Your task to perform on an android device: Open calendar and show me the second week of next month Image 0: 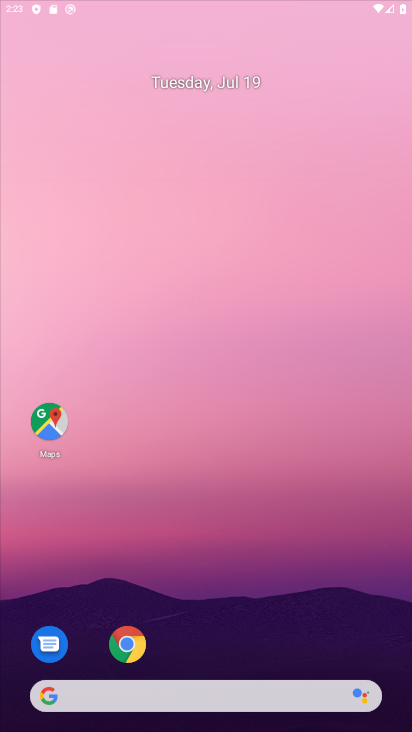
Step 0: click (241, 155)
Your task to perform on an android device: Open calendar and show me the second week of next month Image 1: 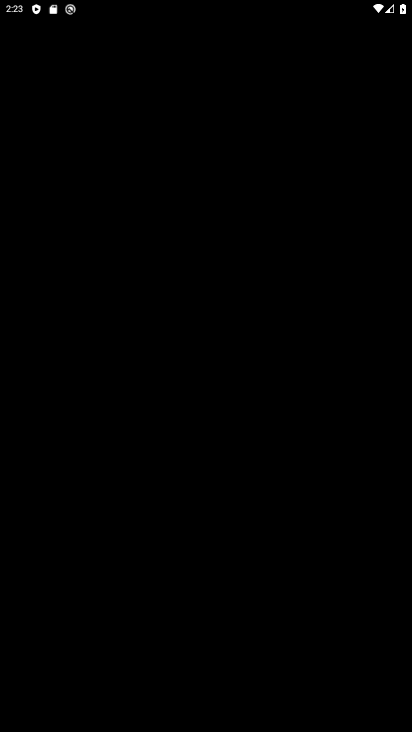
Step 1: press home button
Your task to perform on an android device: Open calendar and show me the second week of next month Image 2: 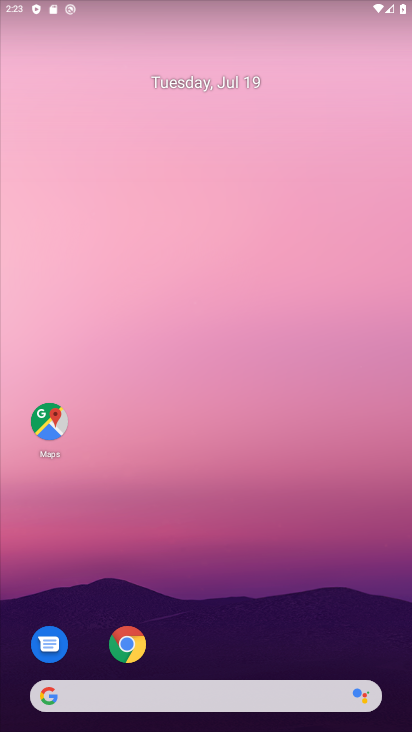
Step 2: drag from (235, 535) to (227, 116)
Your task to perform on an android device: Open calendar and show me the second week of next month Image 3: 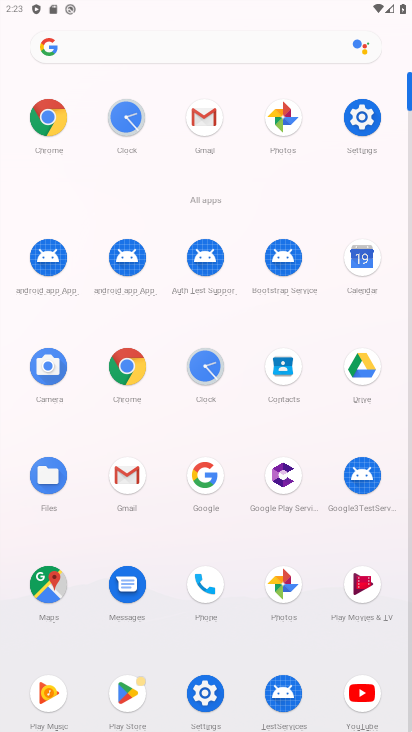
Step 3: click (362, 267)
Your task to perform on an android device: Open calendar and show me the second week of next month Image 4: 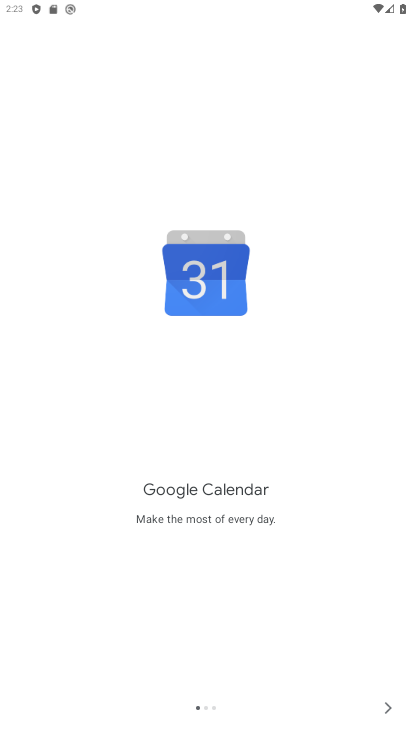
Step 4: click (388, 705)
Your task to perform on an android device: Open calendar and show me the second week of next month Image 5: 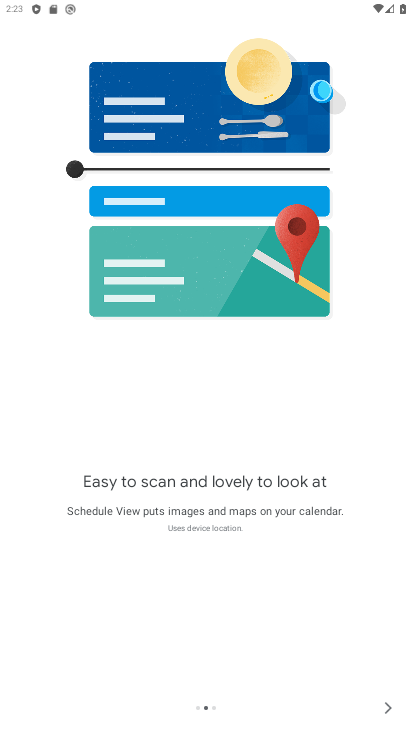
Step 5: click (388, 705)
Your task to perform on an android device: Open calendar and show me the second week of next month Image 6: 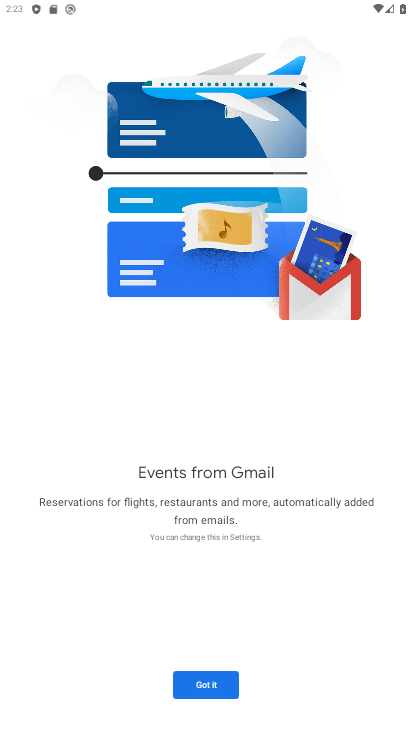
Step 6: click (205, 679)
Your task to perform on an android device: Open calendar and show me the second week of next month Image 7: 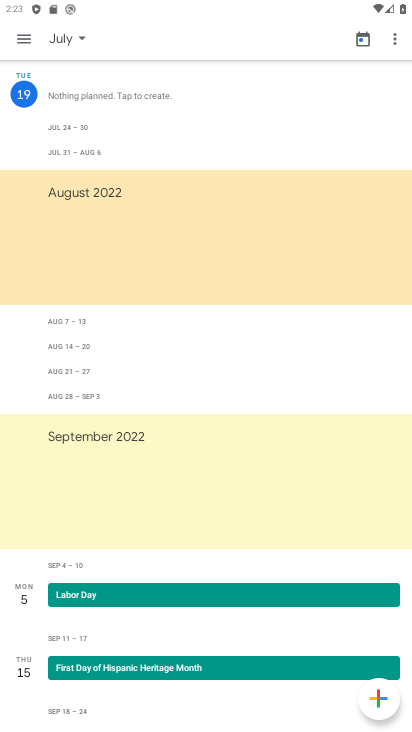
Step 7: click (70, 32)
Your task to perform on an android device: Open calendar and show me the second week of next month Image 8: 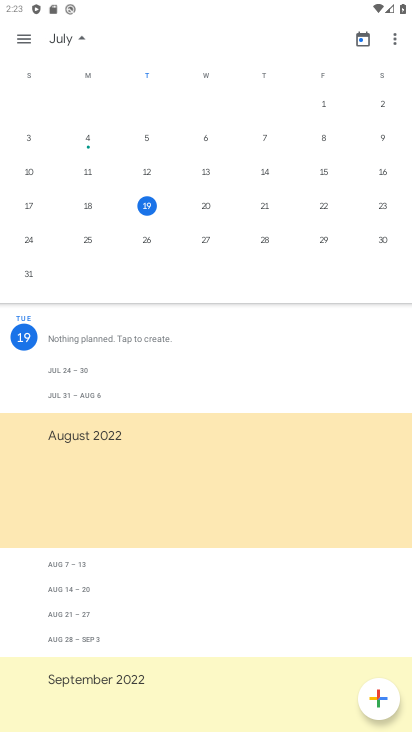
Step 8: drag from (394, 192) to (8, 135)
Your task to perform on an android device: Open calendar and show me the second week of next month Image 9: 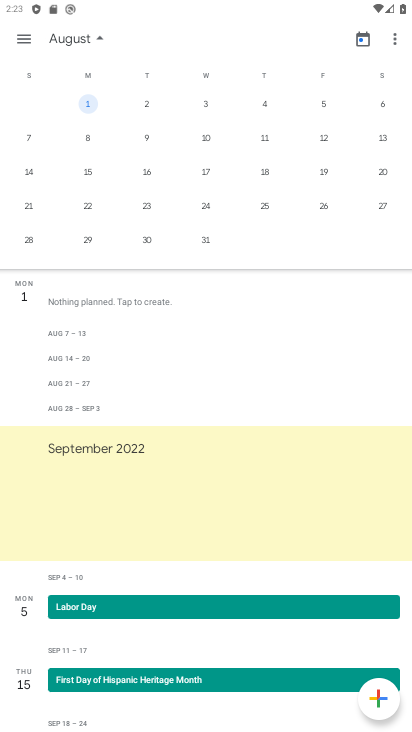
Step 9: click (32, 136)
Your task to perform on an android device: Open calendar and show me the second week of next month Image 10: 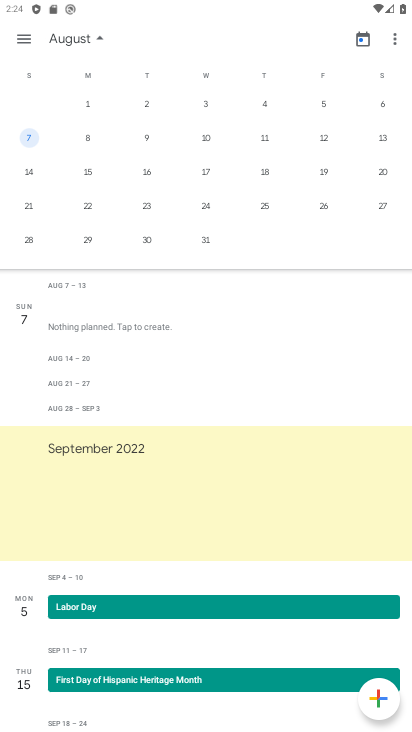
Step 10: task complete